Your task to perform on an android device: check battery use Image 0: 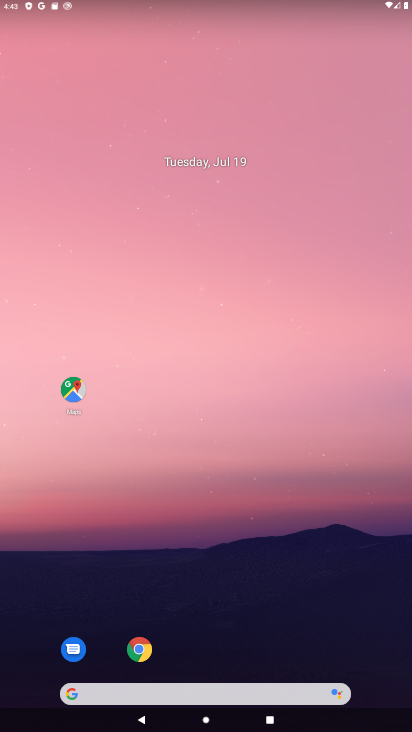
Step 0: press home button
Your task to perform on an android device: check battery use Image 1: 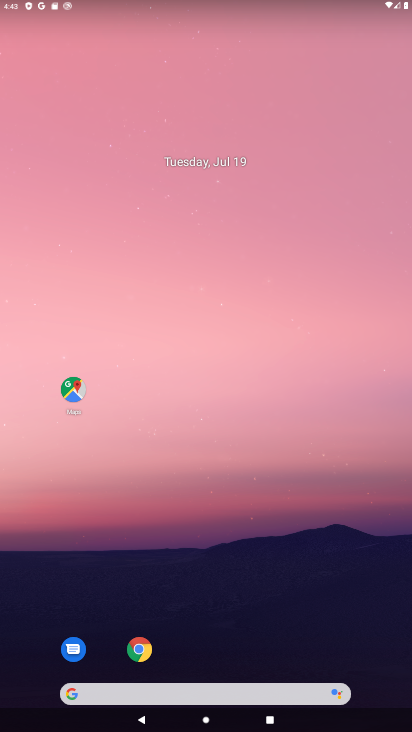
Step 1: drag from (201, 657) to (223, 100)
Your task to perform on an android device: check battery use Image 2: 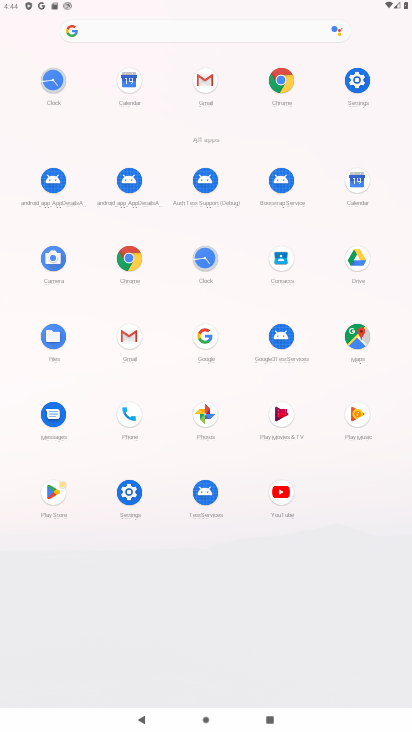
Step 2: click (356, 80)
Your task to perform on an android device: check battery use Image 3: 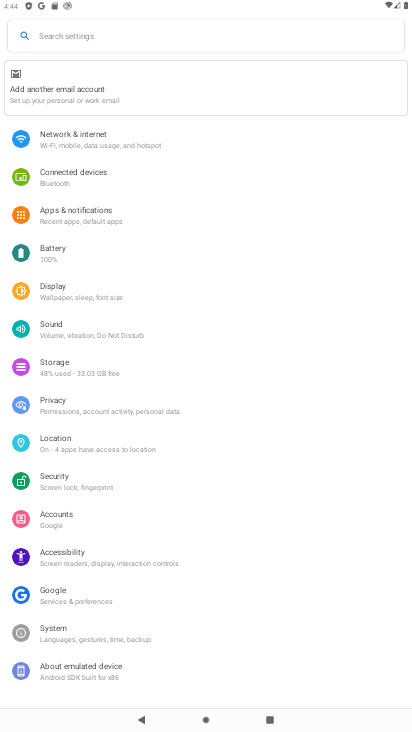
Step 3: click (58, 253)
Your task to perform on an android device: check battery use Image 4: 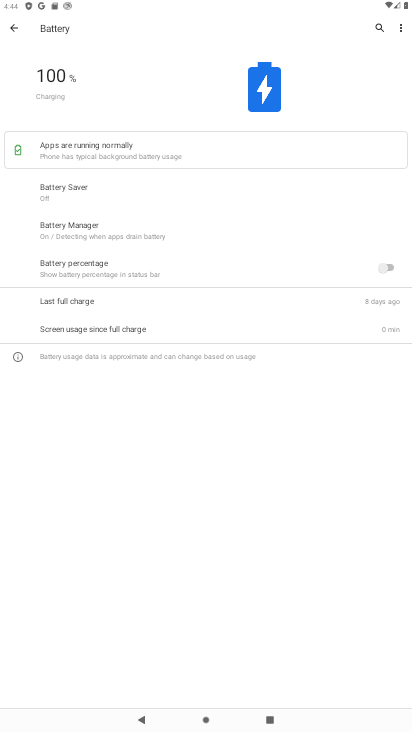
Step 4: click (403, 21)
Your task to perform on an android device: check battery use Image 5: 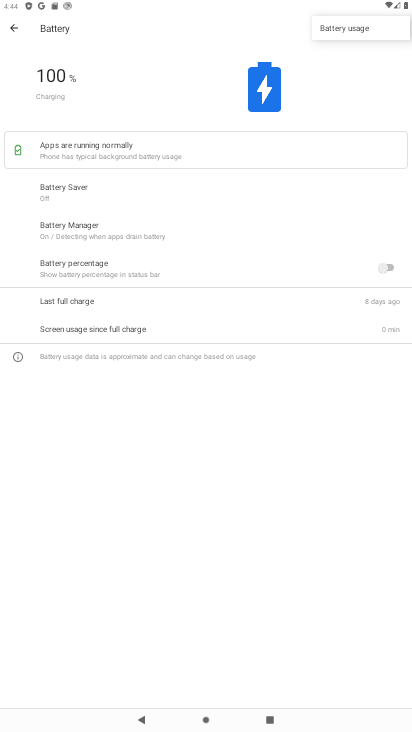
Step 5: click (357, 26)
Your task to perform on an android device: check battery use Image 6: 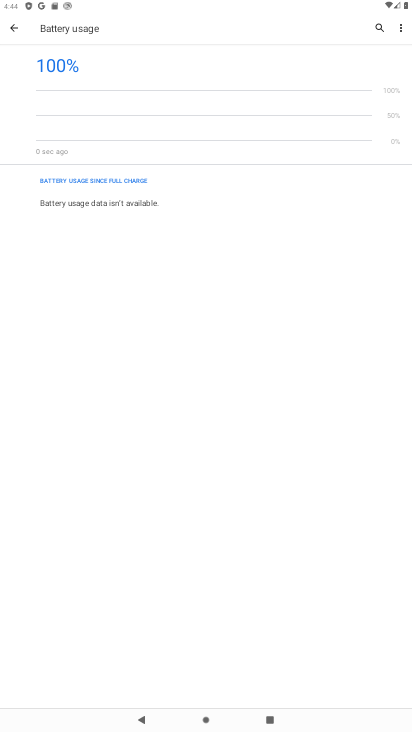
Step 6: task complete